Your task to perform on an android device: Open Google Chrome Image 0: 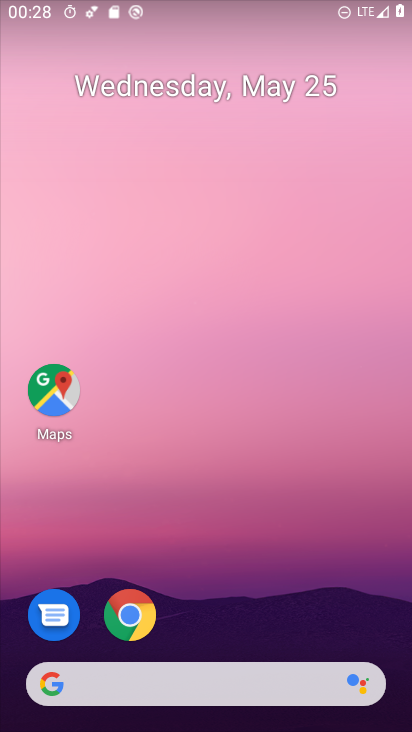
Step 0: drag from (301, 675) to (205, 0)
Your task to perform on an android device: Open Google Chrome Image 1: 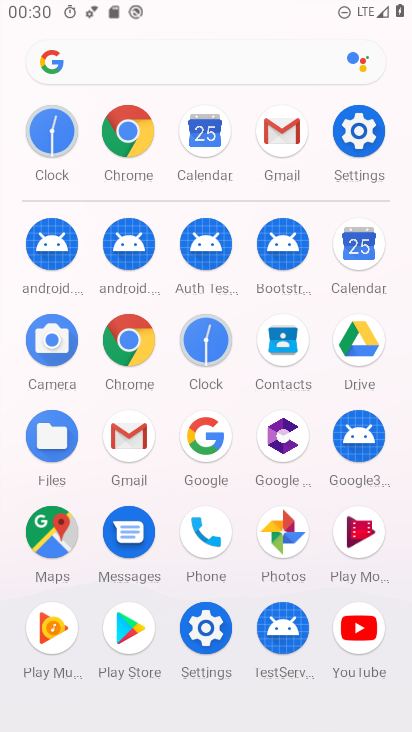
Step 1: click (137, 142)
Your task to perform on an android device: Open Google Chrome Image 2: 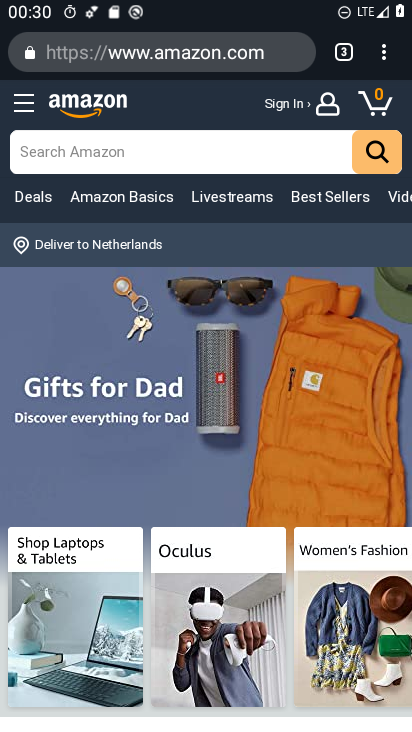
Step 2: click (341, 52)
Your task to perform on an android device: Open Google Chrome Image 3: 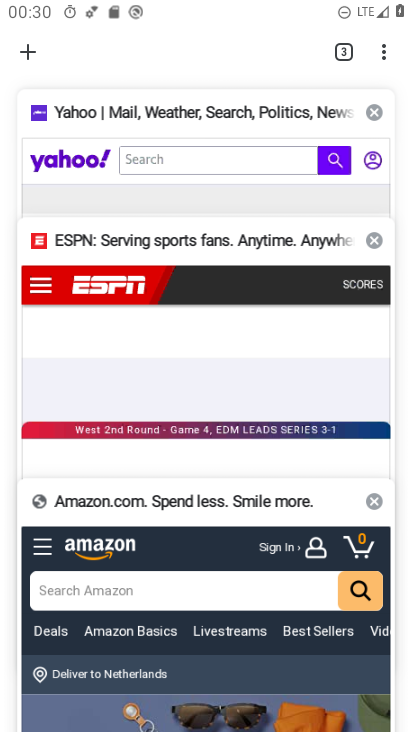
Step 3: click (34, 50)
Your task to perform on an android device: Open Google Chrome Image 4: 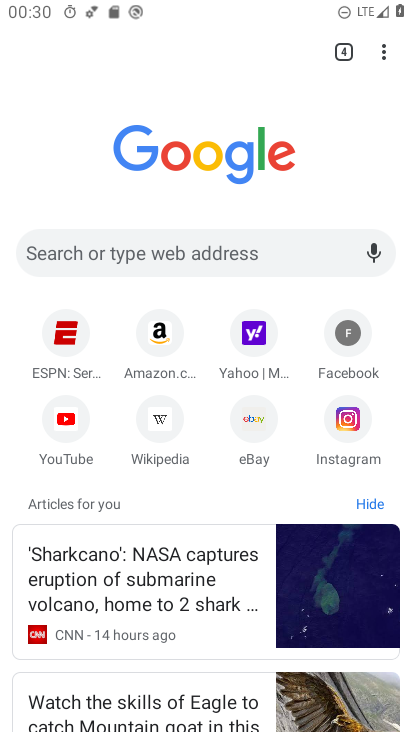
Step 4: task complete